Your task to perform on an android device: Open wifi settings Image 0: 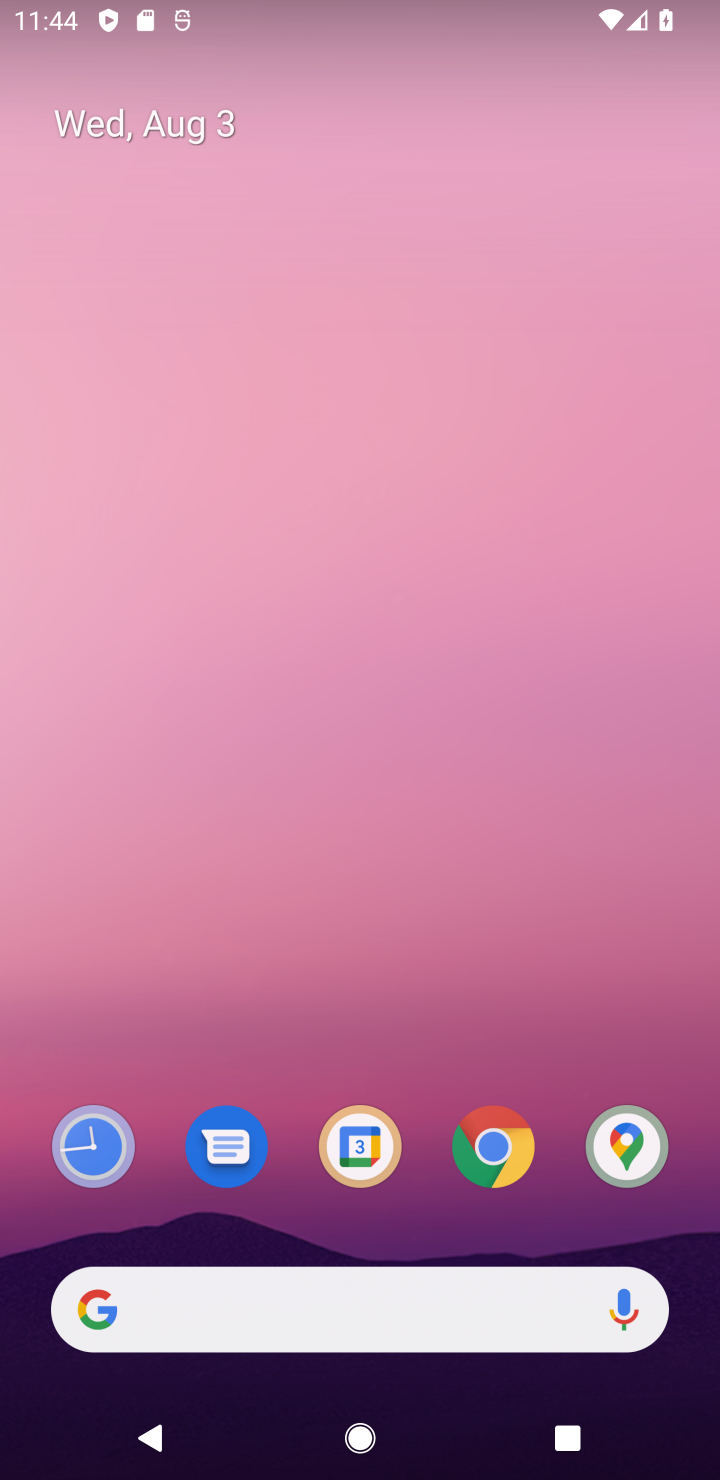
Step 0: press home button
Your task to perform on an android device: Open wifi settings Image 1: 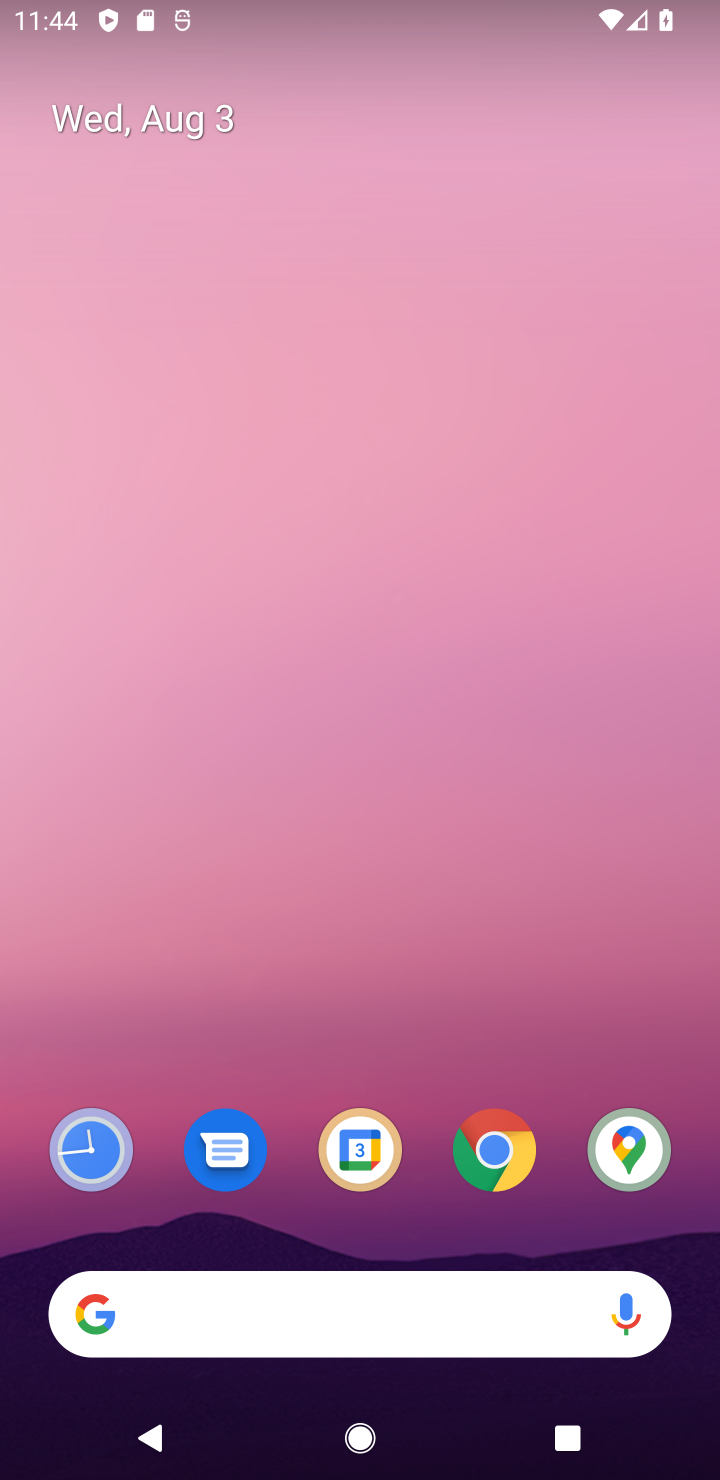
Step 1: drag from (425, 959) to (468, 504)
Your task to perform on an android device: Open wifi settings Image 2: 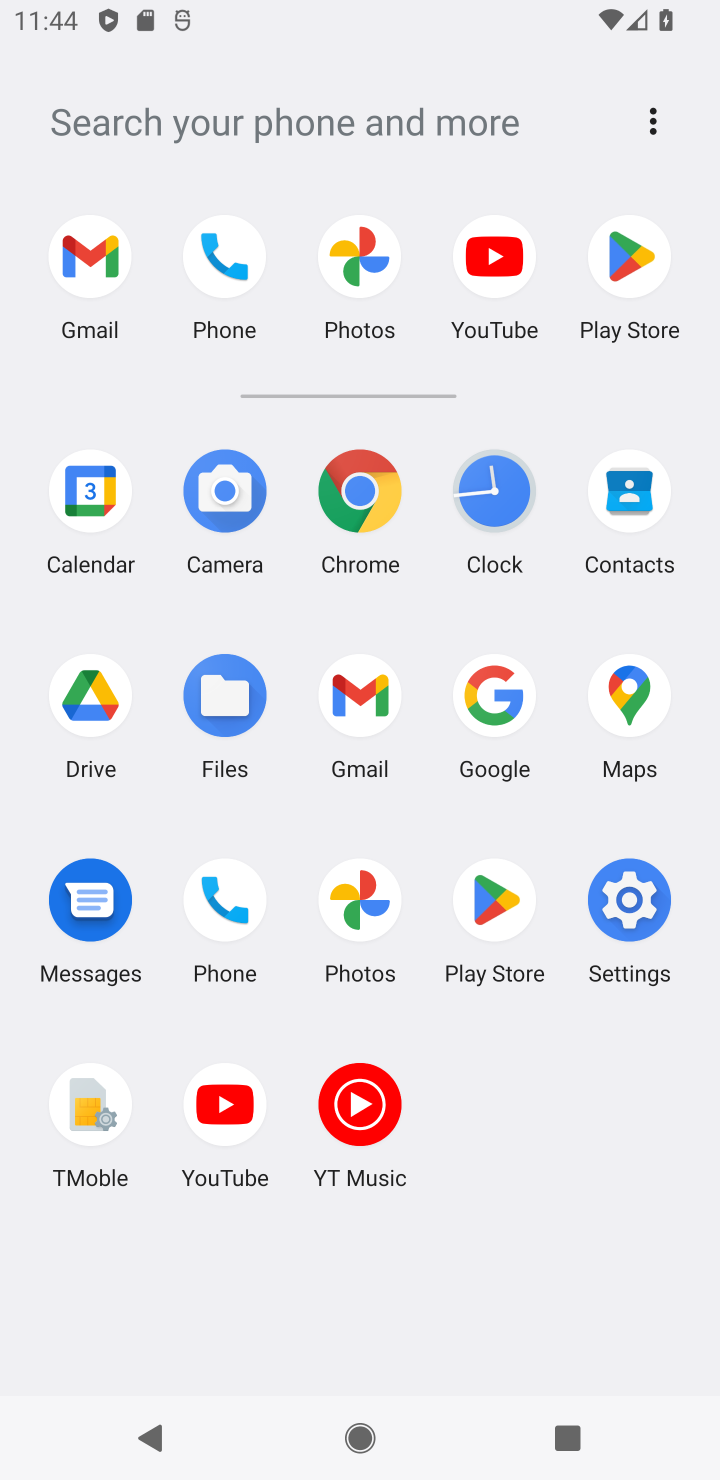
Step 2: click (642, 885)
Your task to perform on an android device: Open wifi settings Image 3: 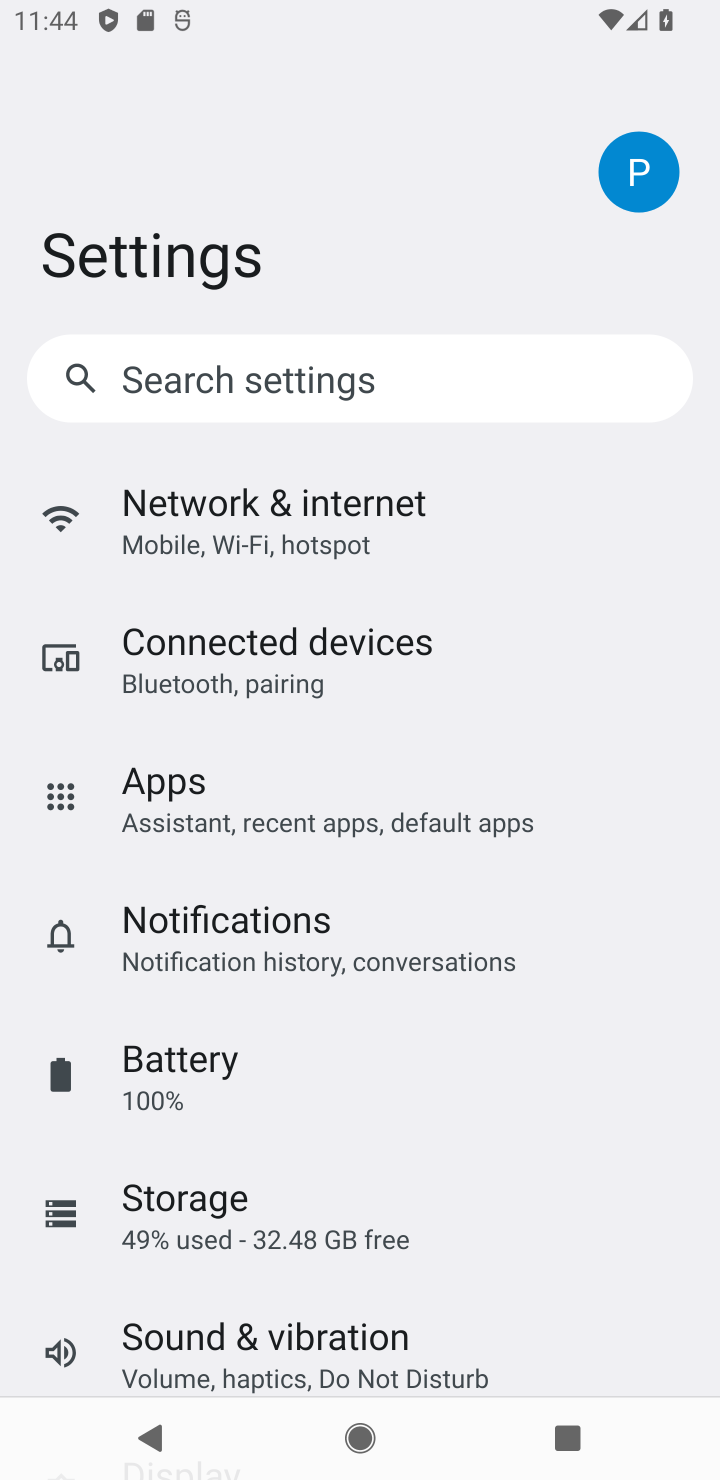
Step 3: drag from (615, 1164) to (620, 654)
Your task to perform on an android device: Open wifi settings Image 4: 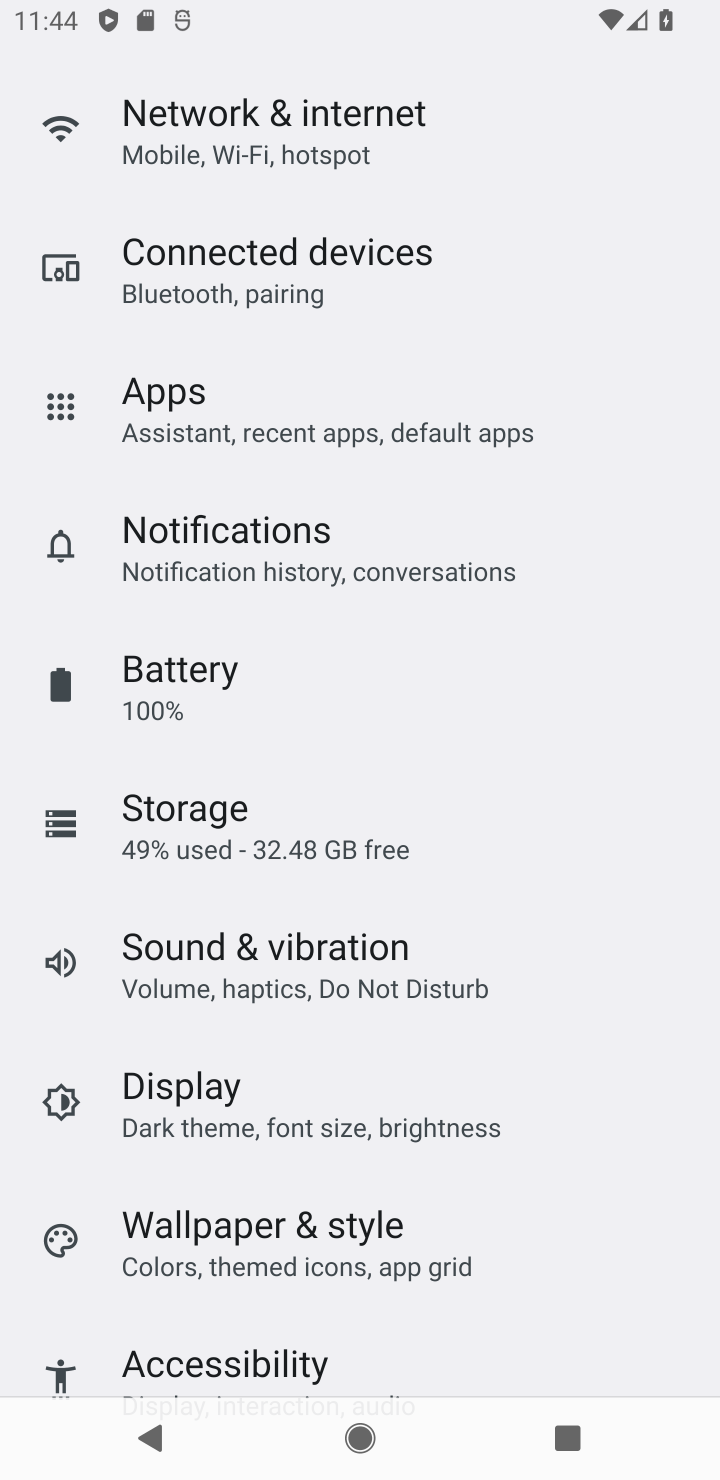
Step 4: drag from (582, 1034) to (597, 682)
Your task to perform on an android device: Open wifi settings Image 5: 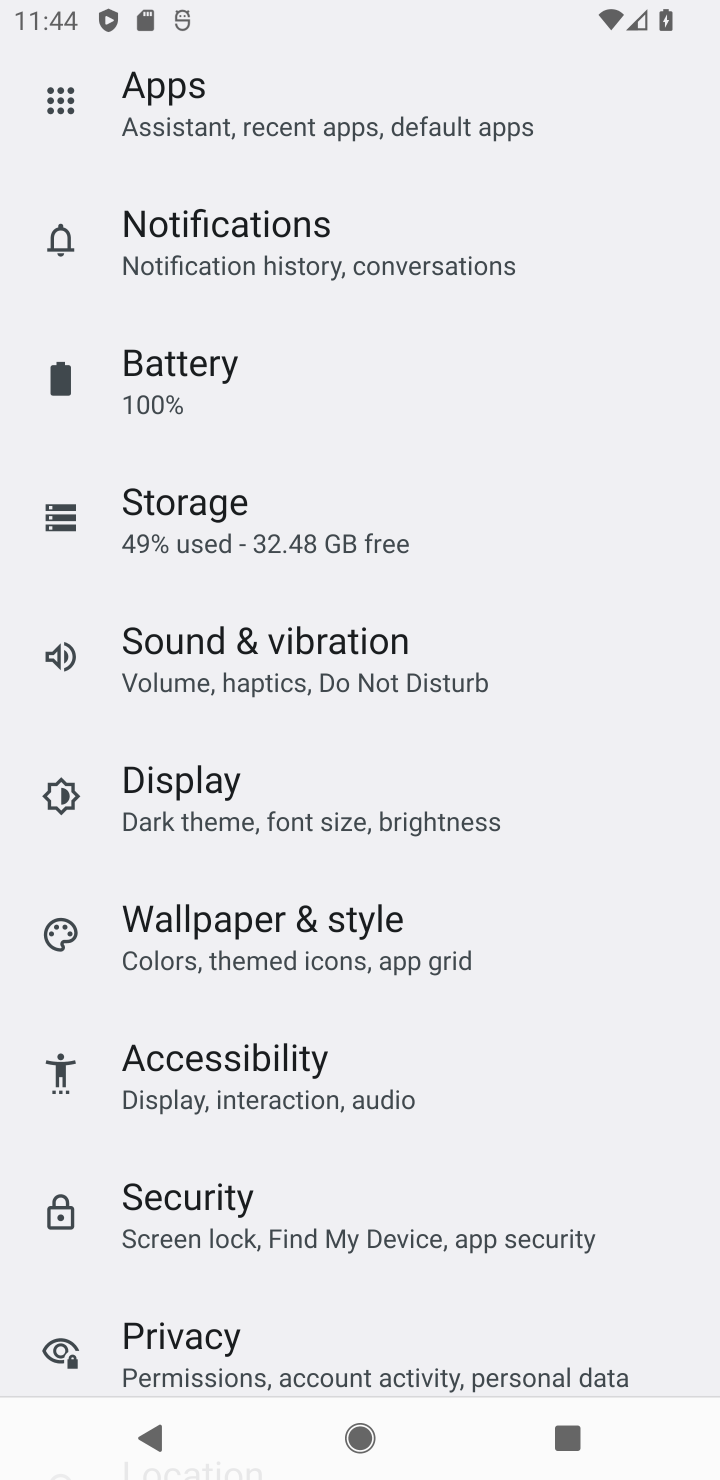
Step 5: drag from (545, 1114) to (593, 753)
Your task to perform on an android device: Open wifi settings Image 6: 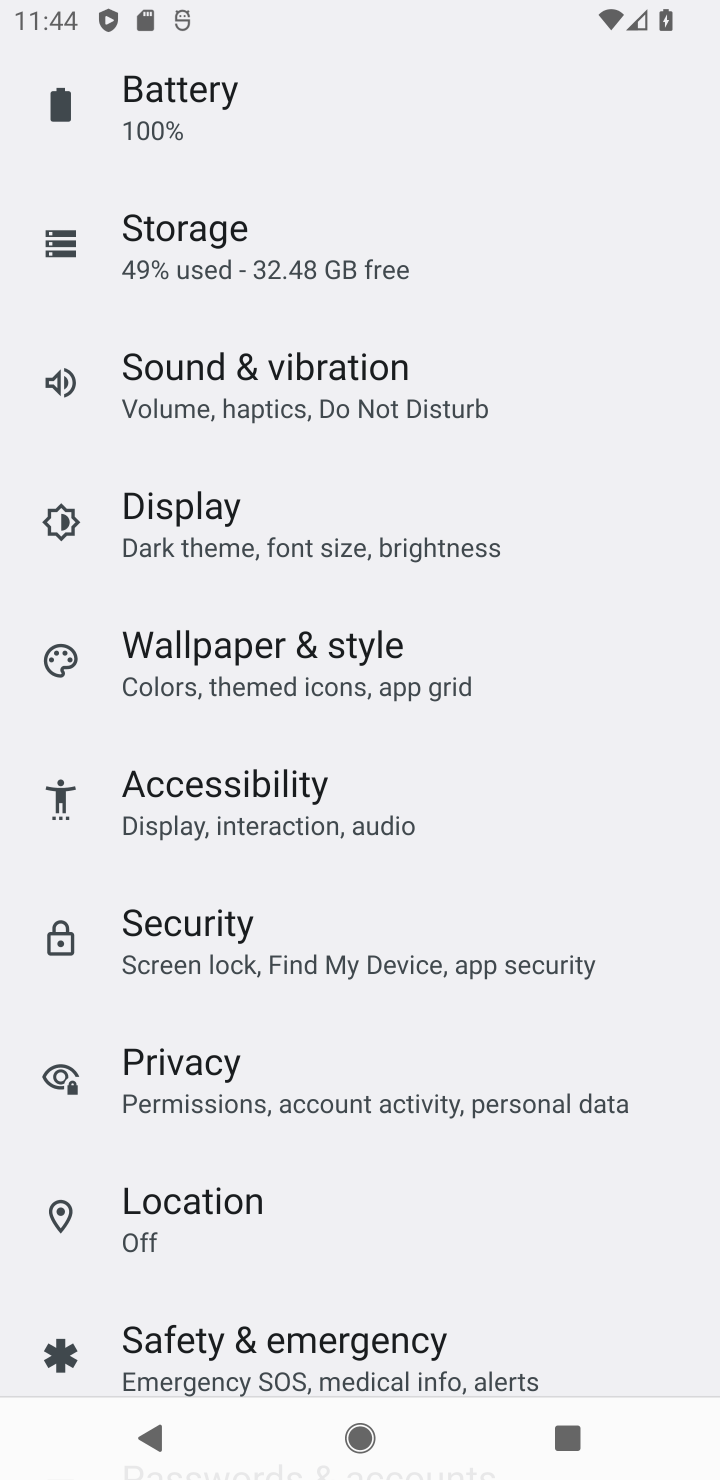
Step 6: drag from (603, 1204) to (636, 614)
Your task to perform on an android device: Open wifi settings Image 7: 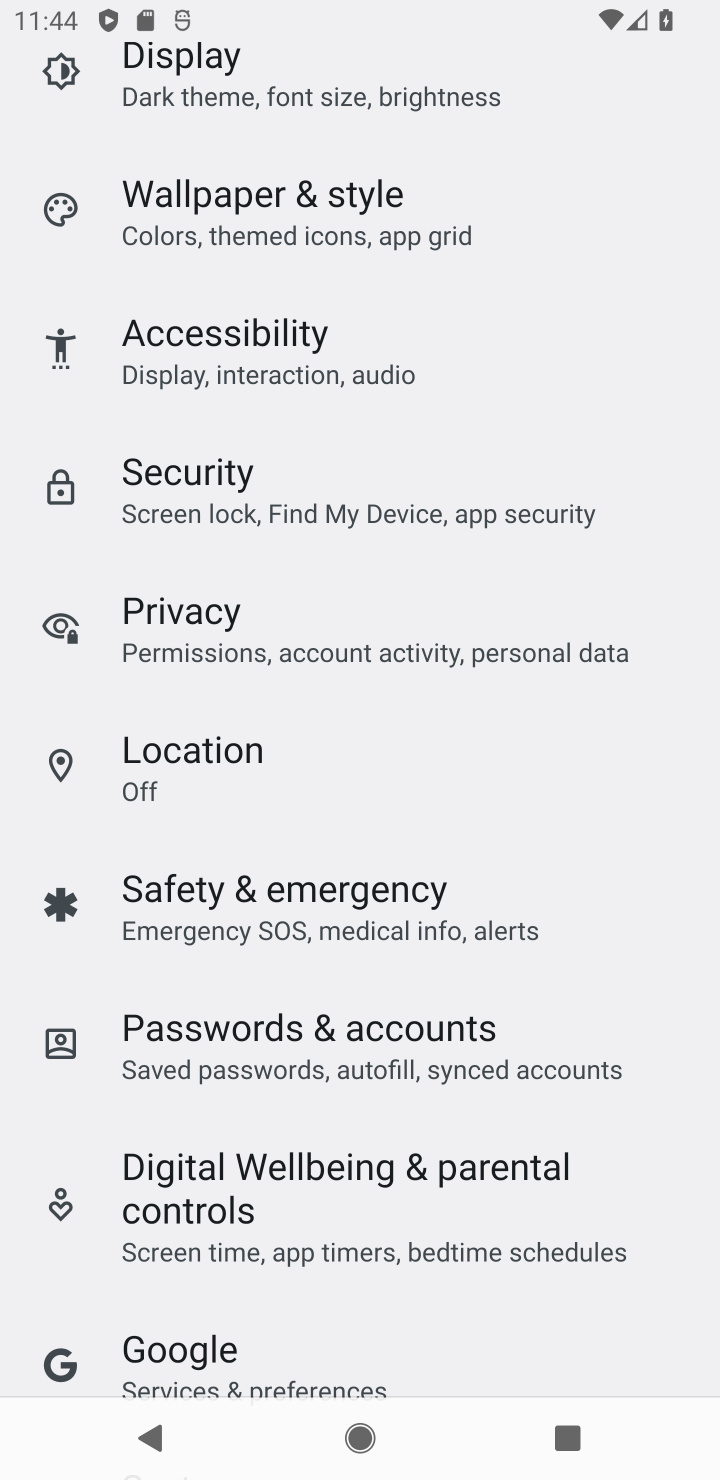
Step 7: drag from (647, 342) to (637, 663)
Your task to perform on an android device: Open wifi settings Image 8: 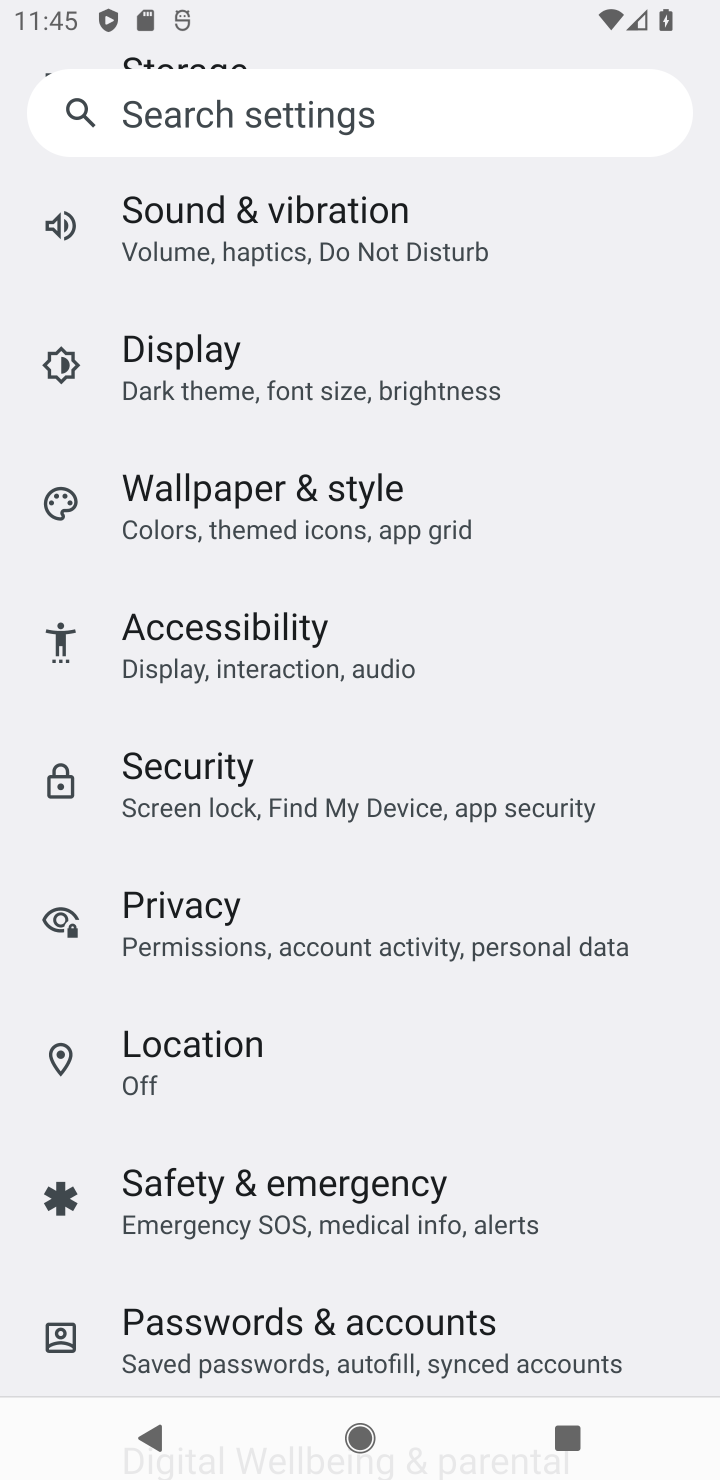
Step 8: drag from (610, 382) to (613, 912)
Your task to perform on an android device: Open wifi settings Image 9: 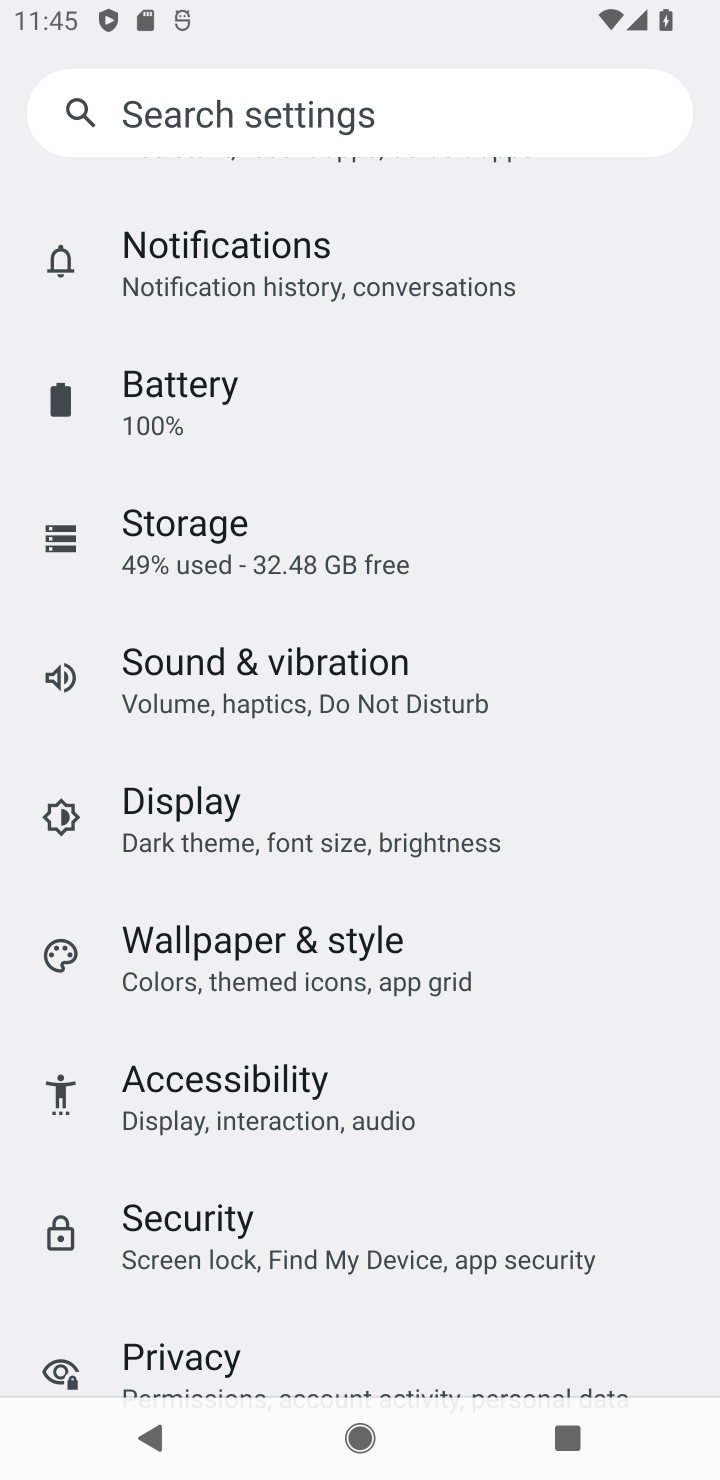
Step 9: drag from (534, 1115) to (543, 720)
Your task to perform on an android device: Open wifi settings Image 10: 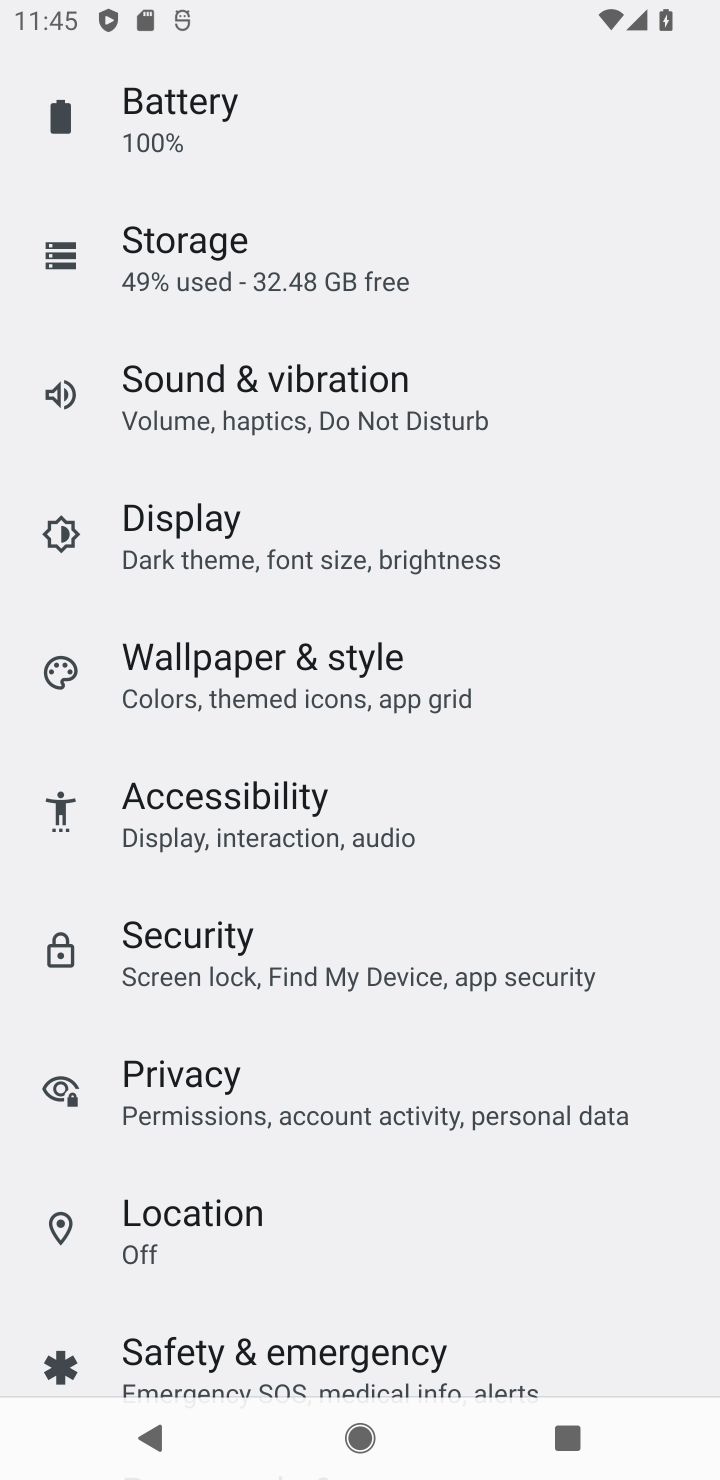
Step 10: drag from (555, 1251) to (559, 813)
Your task to perform on an android device: Open wifi settings Image 11: 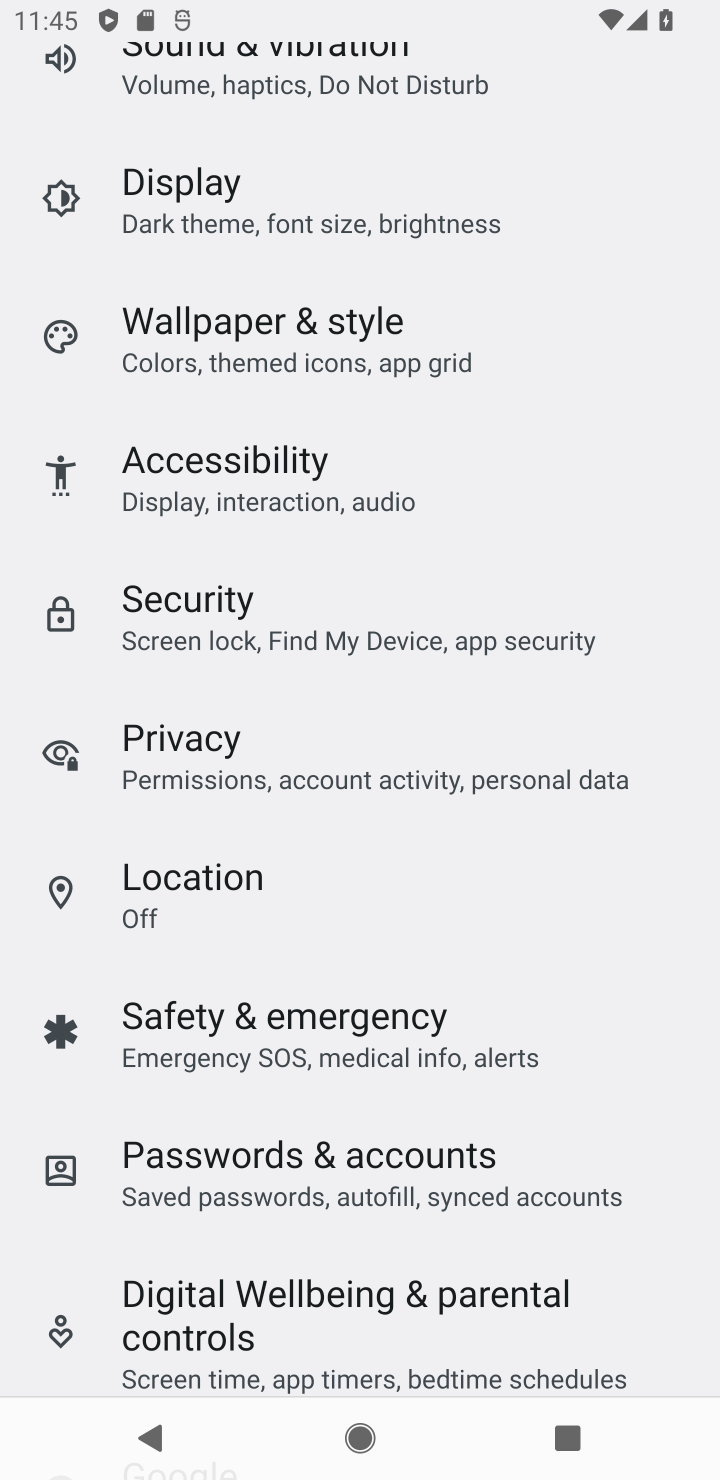
Step 11: drag from (624, 440) to (619, 1065)
Your task to perform on an android device: Open wifi settings Image 12: 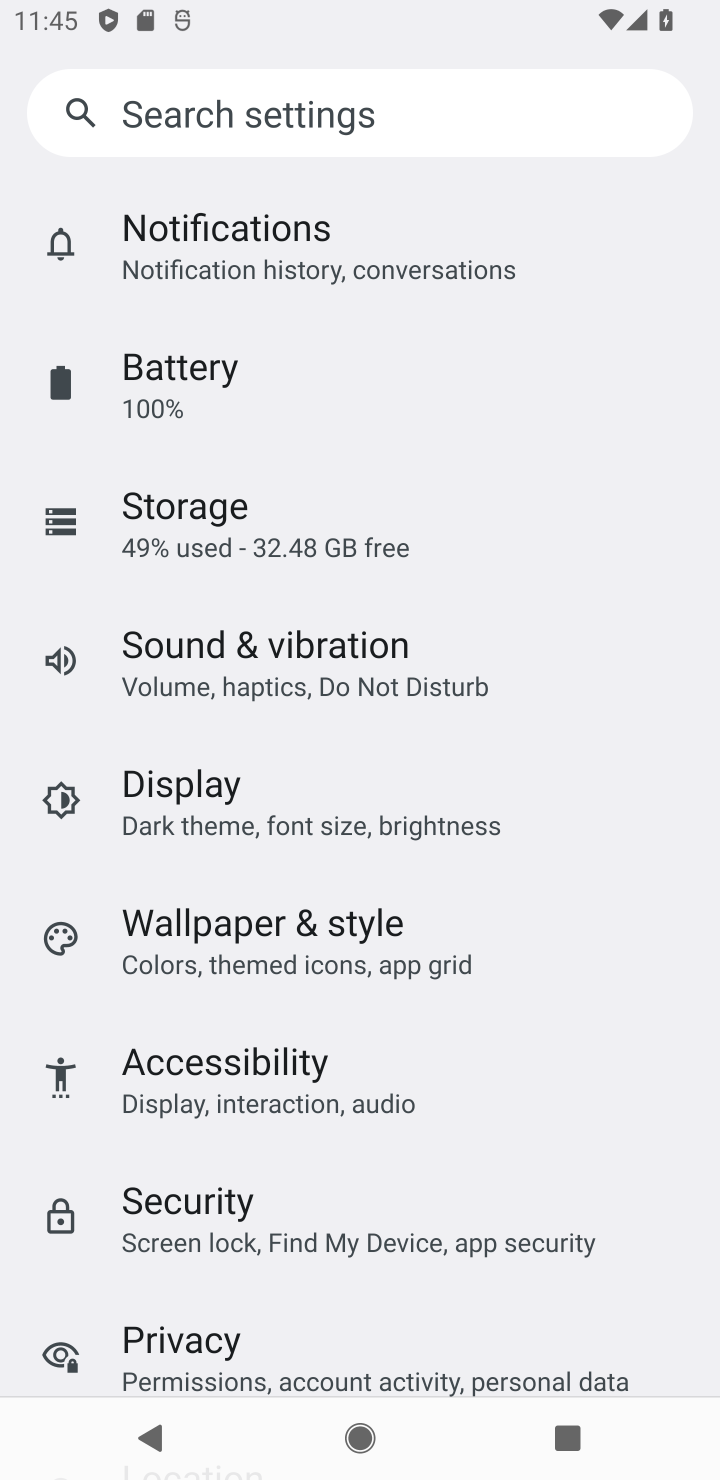
Step 12: drag from (611, 368) to (583, 905)
Your task to perform on an android device: Open wifi settings Image 13: 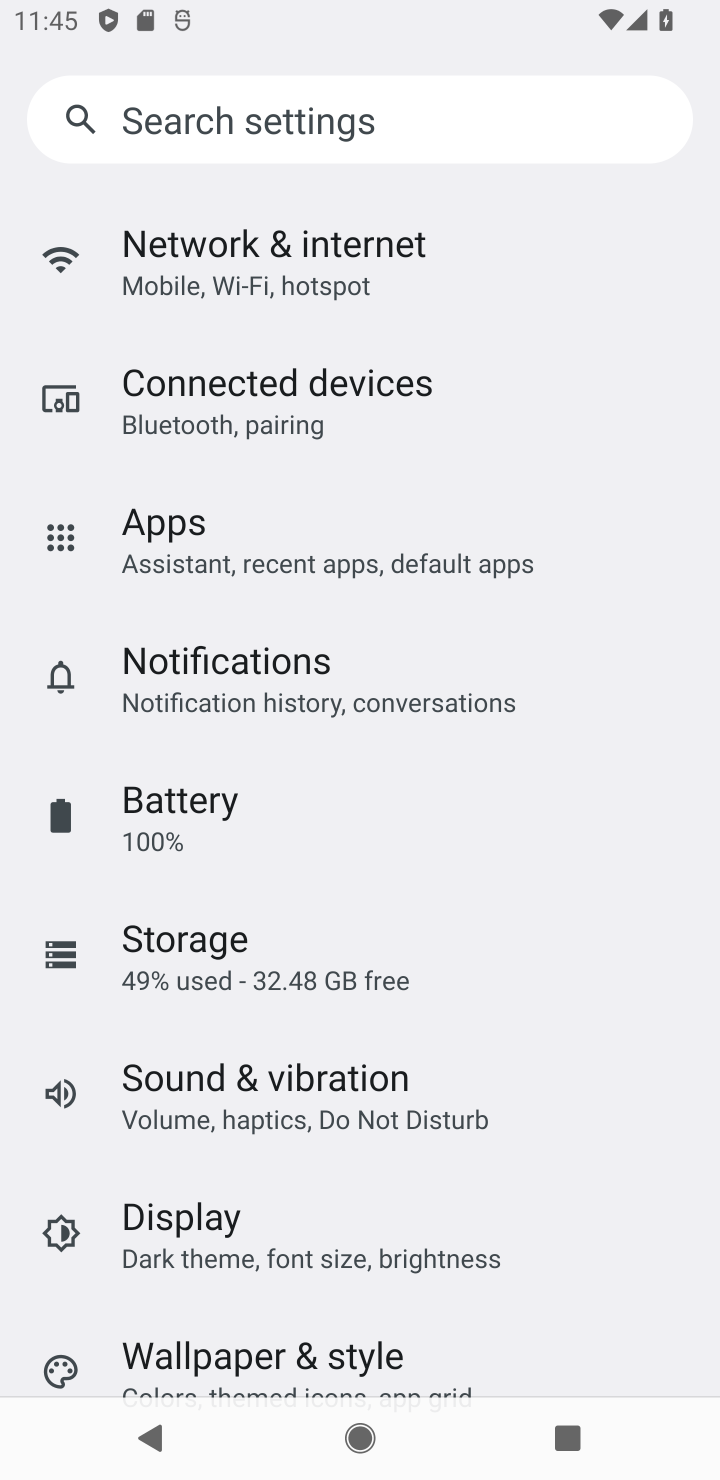
Step 13: click (397, 300)
Your task to perform on an android device: Open wifi settings Image 14: 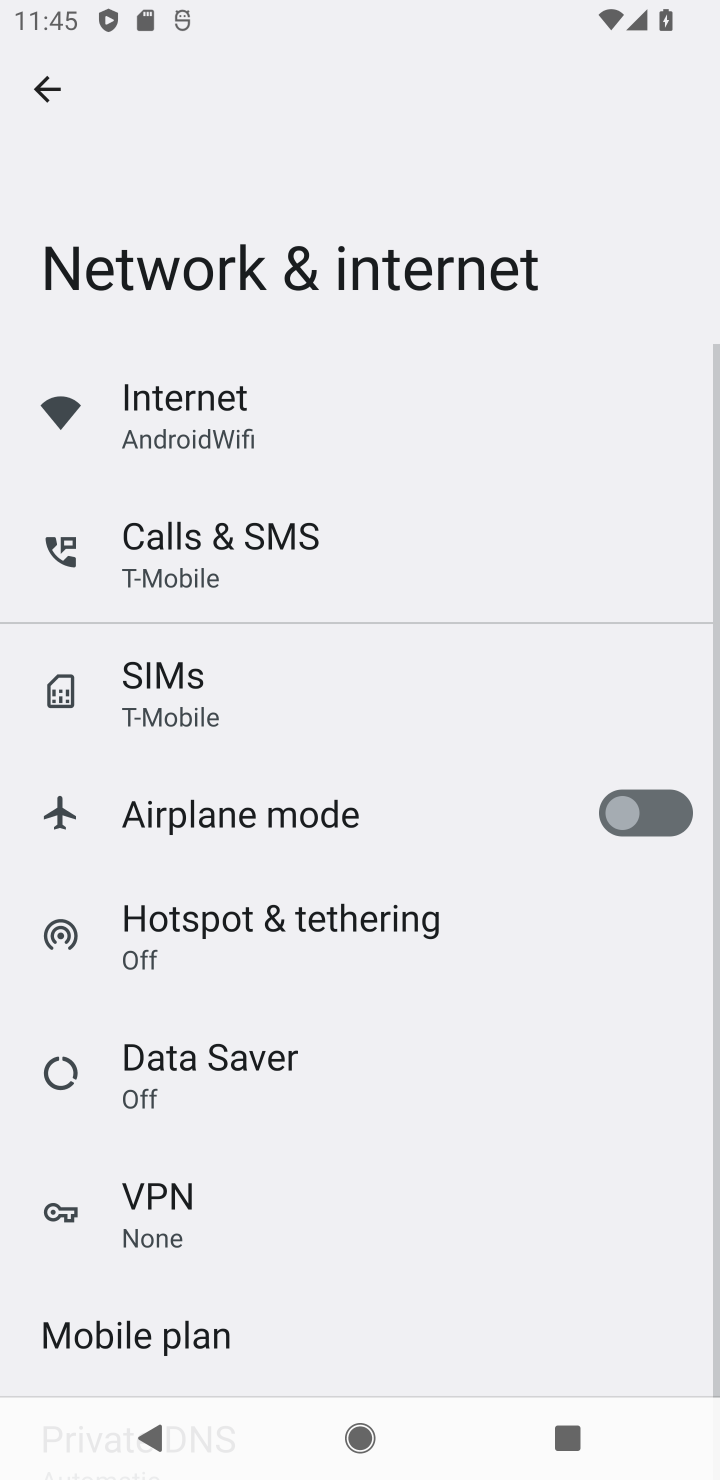
Step 14: click (320, 395)
Your task to perform on an android device: Open wifi settings Image 15: 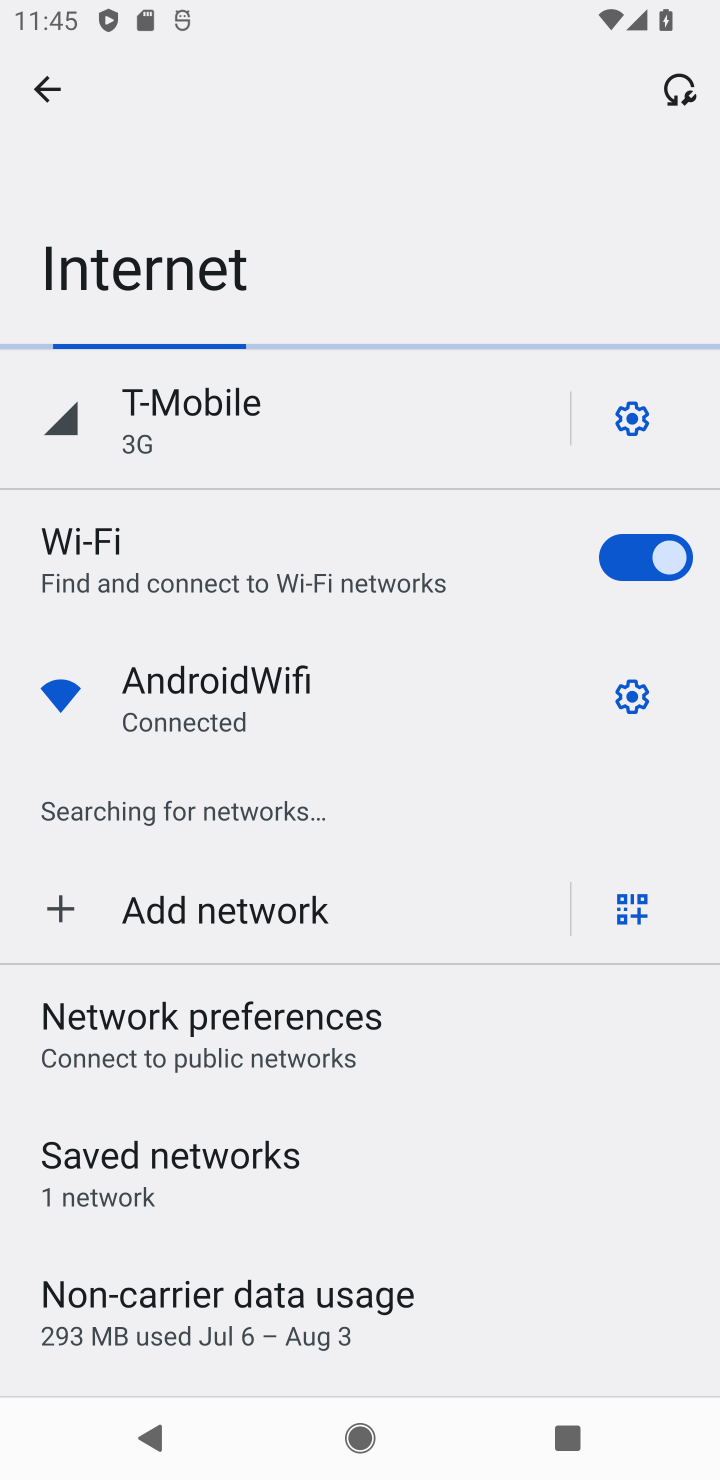
Step 15: task complete